Your task to perform on an android device: stop showing notifications on the lock screen Image 0: 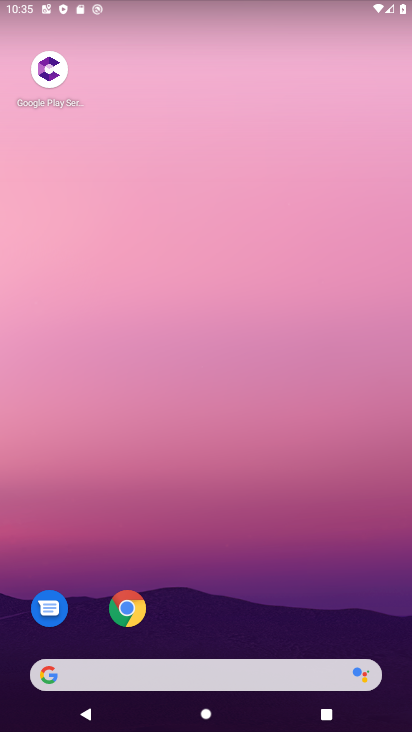
Step 0: drag from (279, 580) to (365, 30)
Your task to perform on an android device: stop showing notifications on the lock screen Image 1: 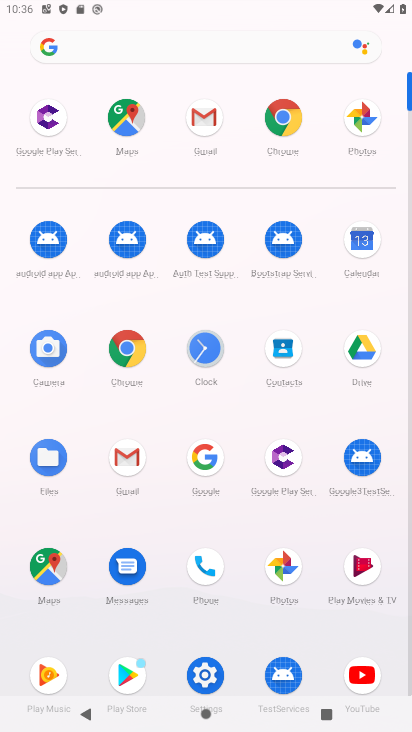
Step 1: click (205, 673)
Your task to perform on an android device: stop showing notifications on the lock screen Image 2: 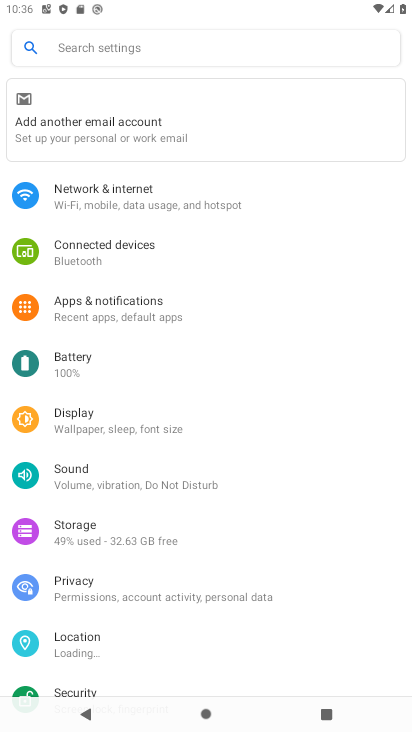
Step 2: click (118, 295)
Your task to perform on an android device: stop showing notifications on the lock screen Image 3: 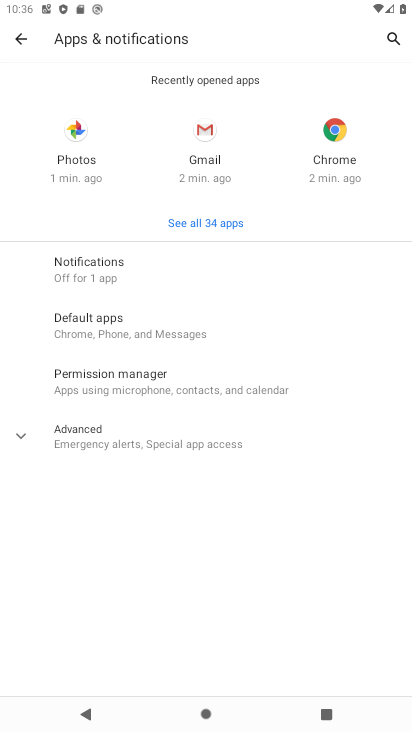
Step 3: click (95, 265)
Your task to perform on an android device: stop showing notifications on the lock screen Image 4: 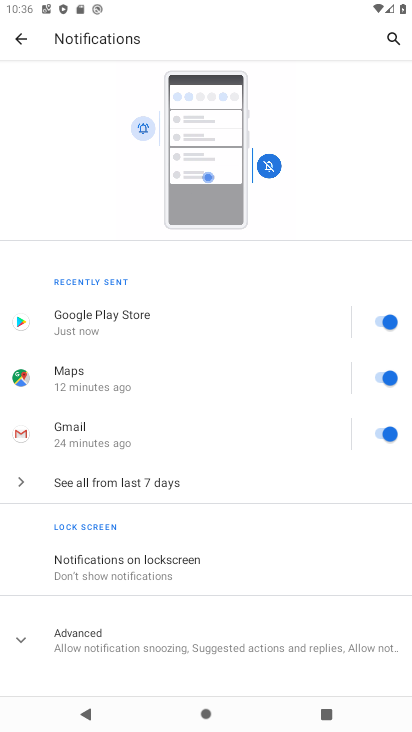
Step 4: click (172, 555)
Your task to perform on an android device: stop showing notifications on the lock screen Image 5: 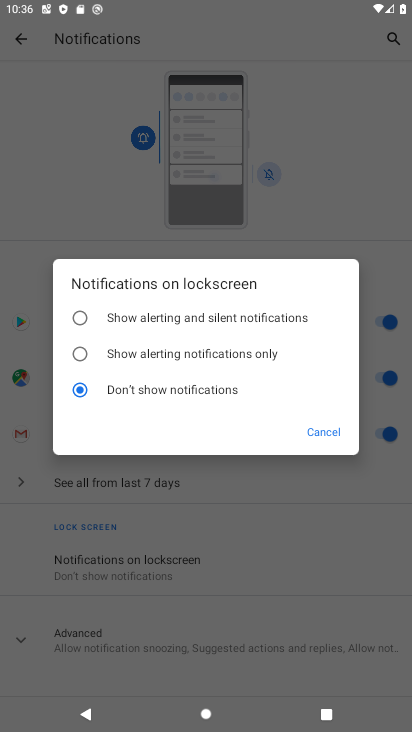
Step 5: click (241, 384)
Your task to perform on an android device: stop showing notifications on the lock screen Image 6: 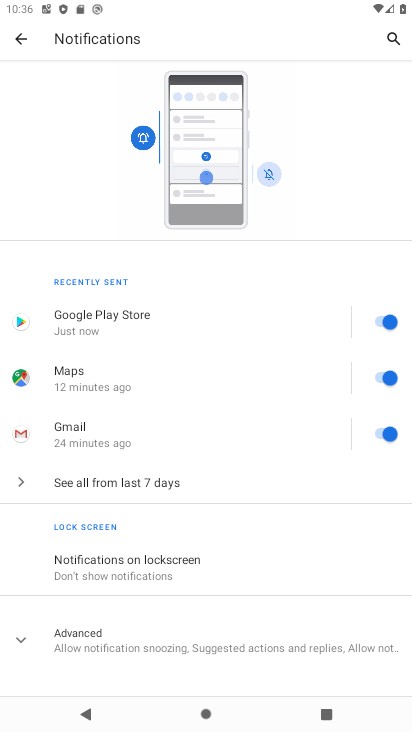
Step 6: task complete